Your task to perform on an android device: Open calendar and show me the second week of next month Image 0: 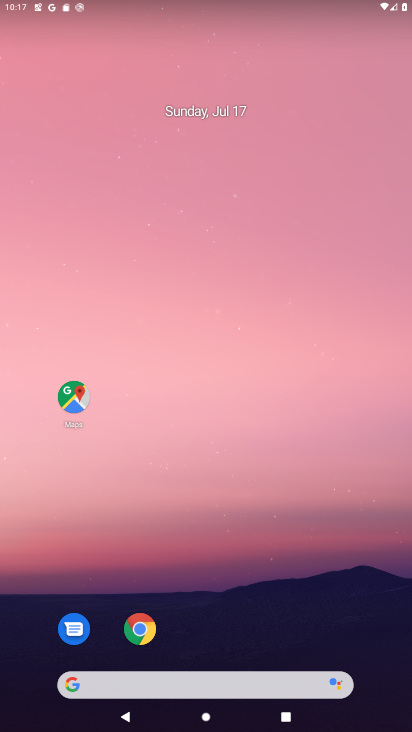
Step 0: drag from (209, 691) to (245, 267)
Your task to perform on an android device: Open calendar and show me the second week of next month Image 1: 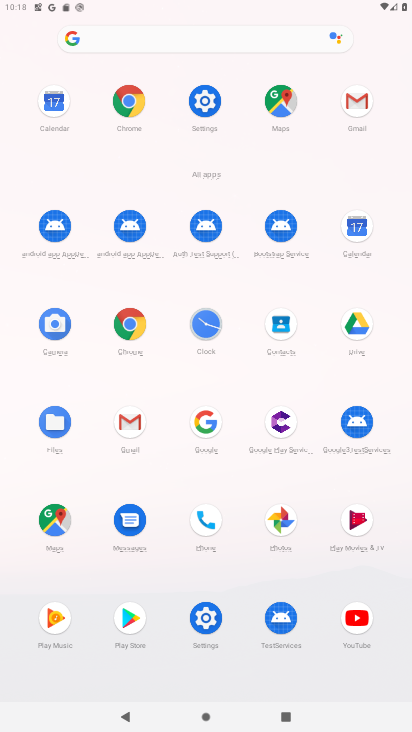
Step 1: click (359, 227)
Your task to perform on an android device: Open calendar and show me the second week of next month Image 2: 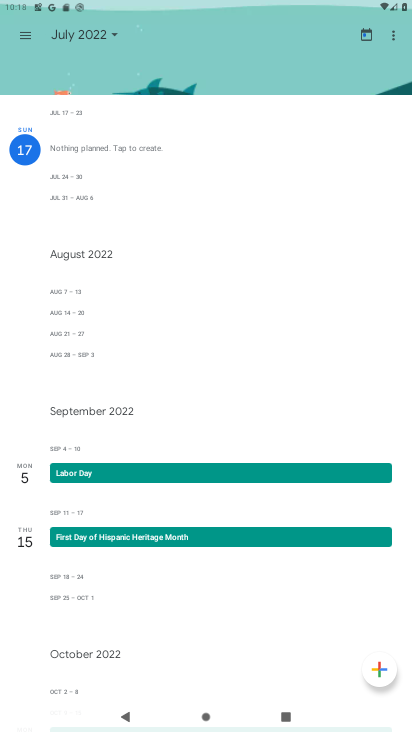
Step 2: click (104, 29)
Your task to perform on an android device: Open calendar and show me the second week of next month Image 3: 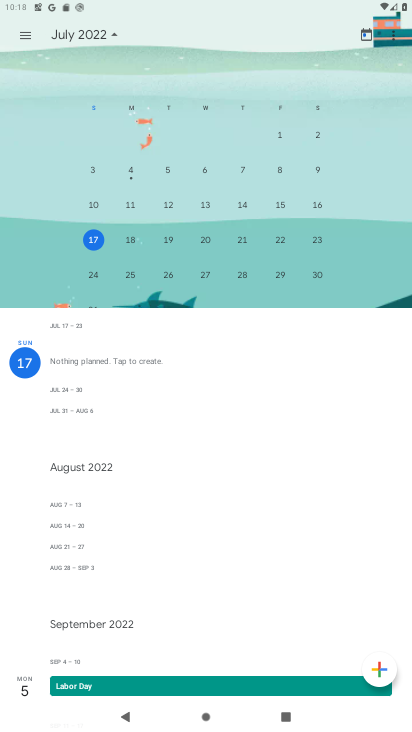
Step 3: drag from (319, 193) to (11, 241)
Your task to perform on an android device: Open calendar and show me the second week of next month Image 4: 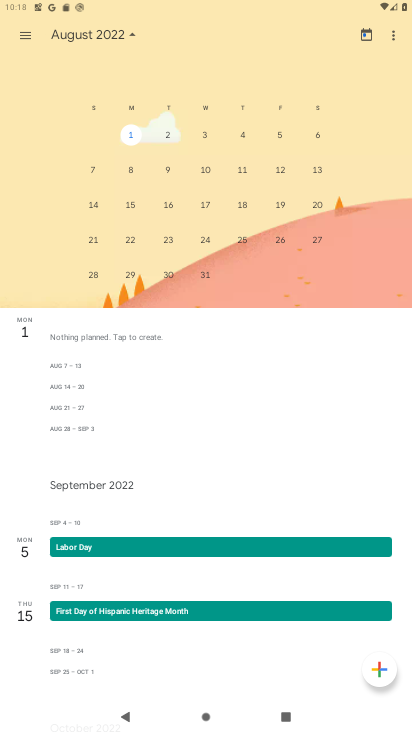
Step 4: click (134, 168)
Your task to perform on an android device: Open calendar and show me the second week of next month Image 5: 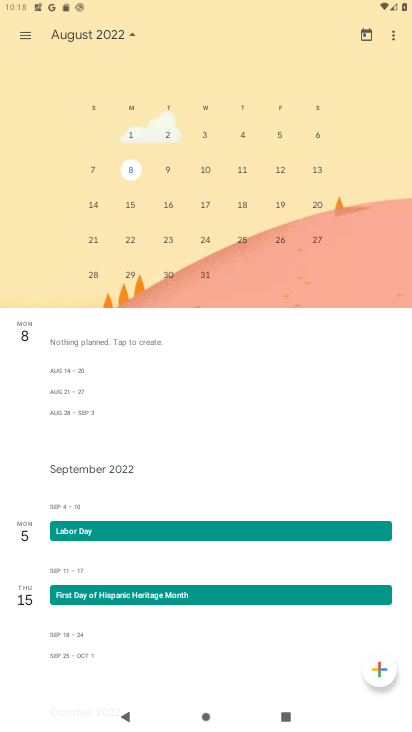
Step 5: click (23, 30)
Your task to perform on an android device: Open calendar and show me the second week of next month Image 6: 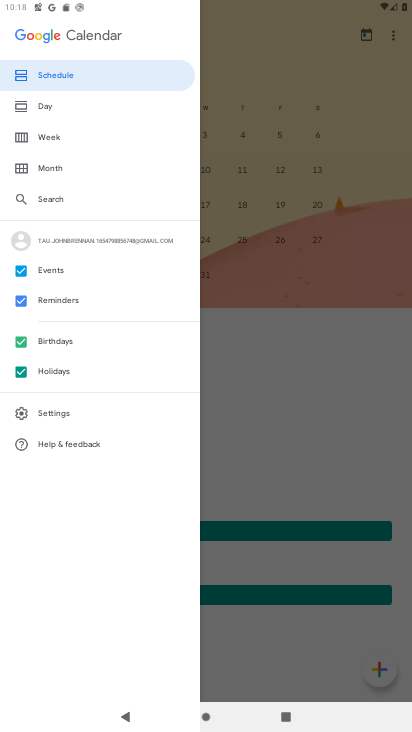
Step 6: click (55, 136)
Your task to perform on an android device: Open calendar and show me the second week of next month Image 7: 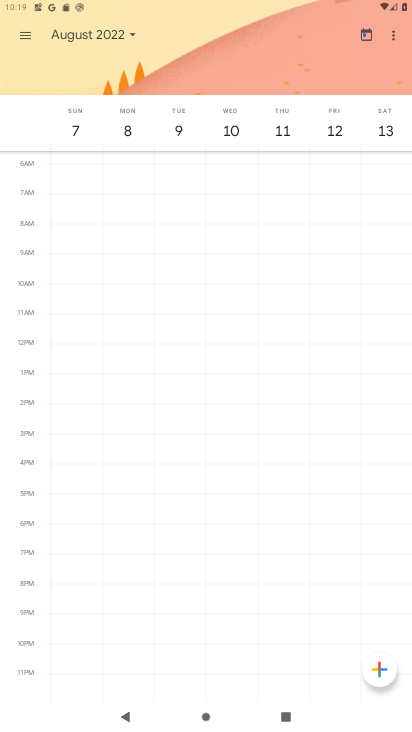
Step 7: task complete